Your task to perform on an android device: Is it going to rain today? Image 0: 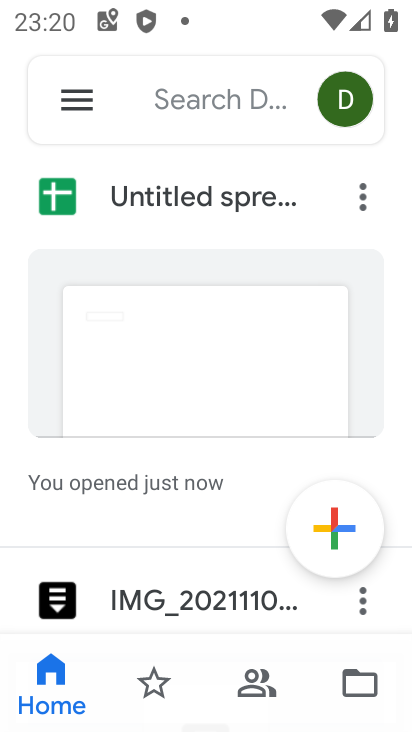
Step 0: press home button
Your task to perform on an android device: Is it going to rain today? Image 1: 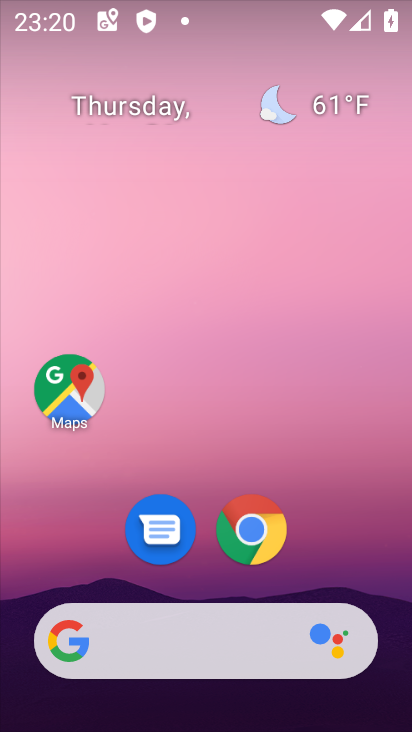
Step 1: click (219, 640)
Your task to perform on an android device: Is it going to rain today? Image 2: 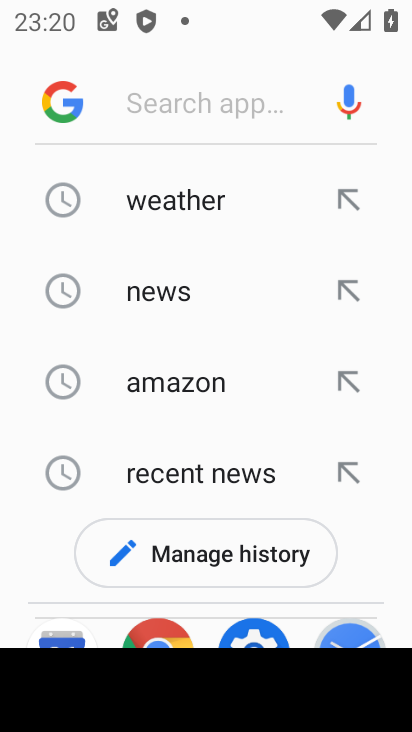
Step 2: click (183, 196)
Your task to perform on an android device: Is it going to rain today? Image 3: 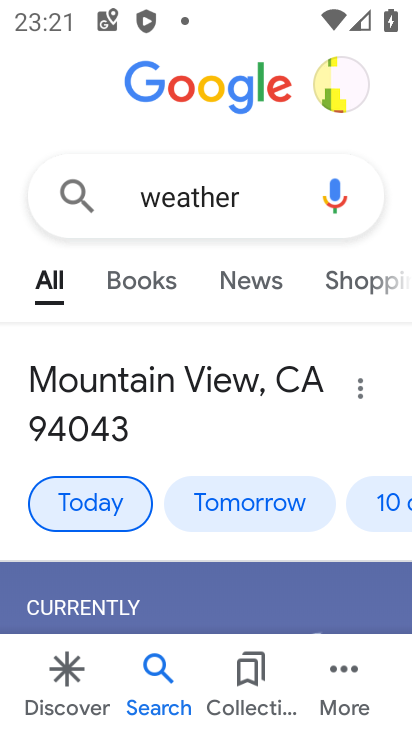
Step 3: task complete